Your task to perform on an android device: turn off improve location accuracy Image 0: 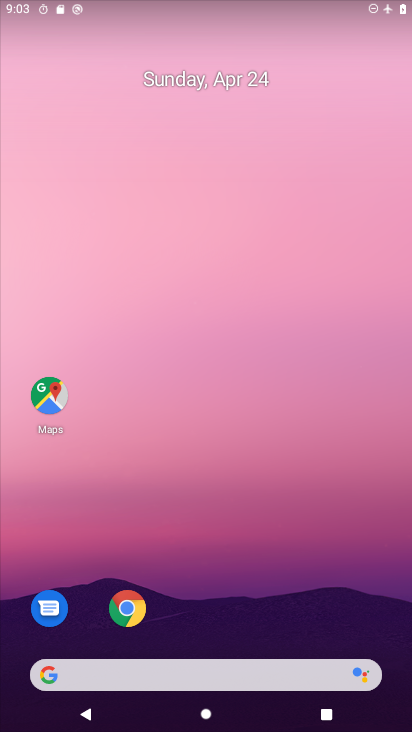
Step 0: drag from (254, 534) to (289, 65)
Your task to perform on an android device: turn off improve location accuracy Image 1: 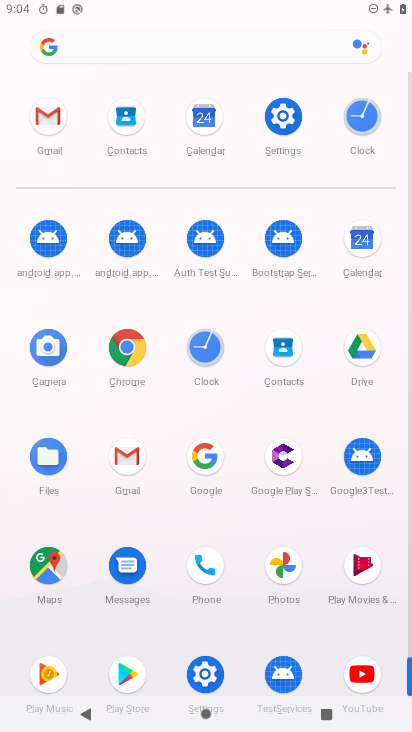
Step 1: click (288, 112)
Your task to perform on an android device: turn off improve location accuracy Image 2: 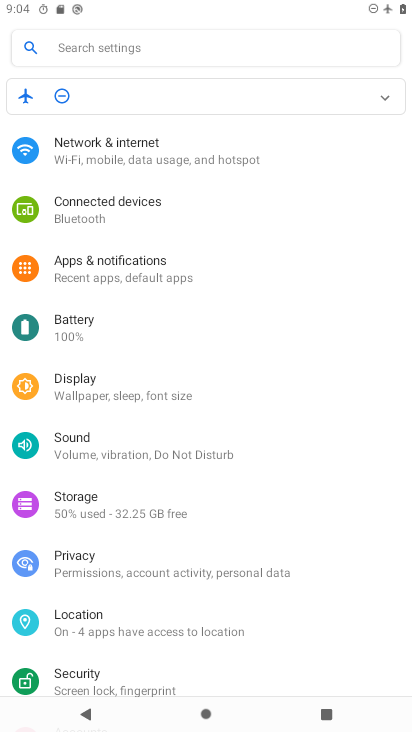
Step 2: click (196, 628)
Your task to perform on an android device: turn off improve location accuracy Image 3: 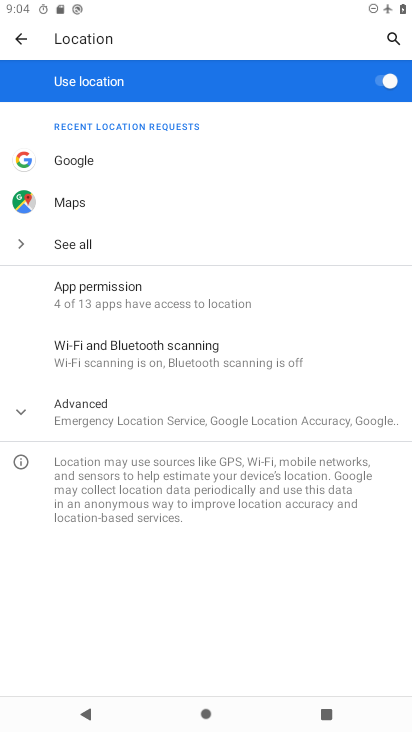
Step 3: click (14, 409)
Your task to perform on an android device: turn off improve location accuracy Image 4: 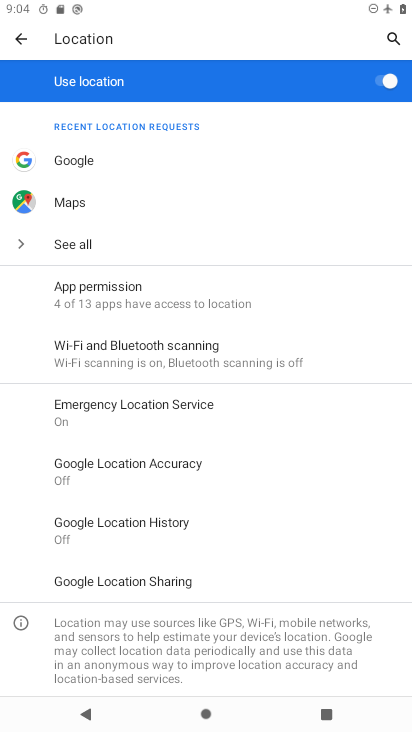
Step 4: task complete